Your task to perform on an android device: turn vacation reply on in the gmail app Image 0: 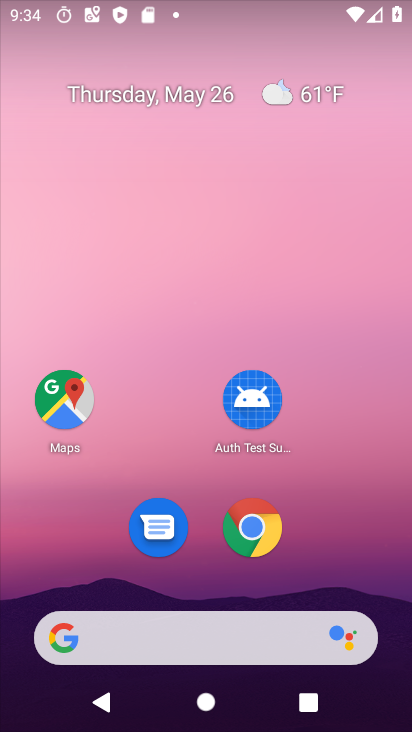
Step 0: drag from (368, 497) to (282, 13)
Your task to perform on an android device: turn vacation reply on in the gmail app Image 1: 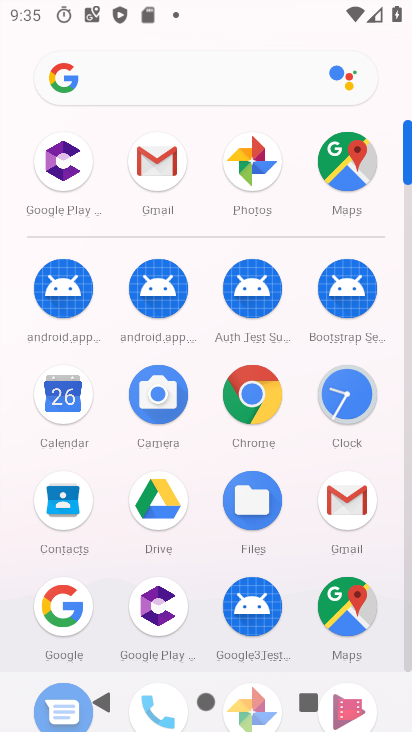
Step 1: click (365, 501)
Your task to perform on an android device: turn vacation reply on in the gmail app Image 2: 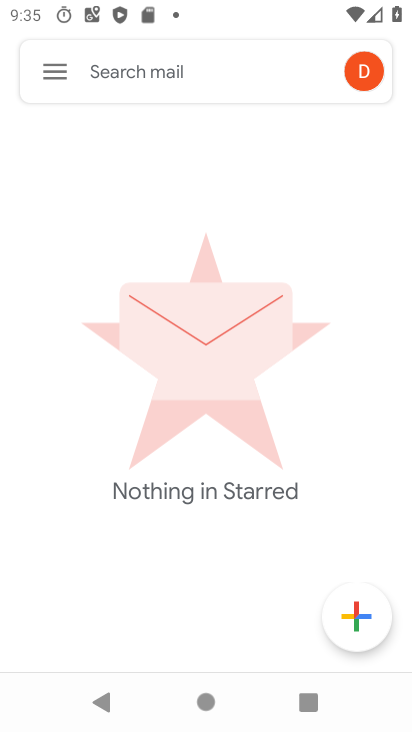
Step 2: click (58, 81)
Your task to perform on an android device: turn vacation reply on in the gmail app Image 3: 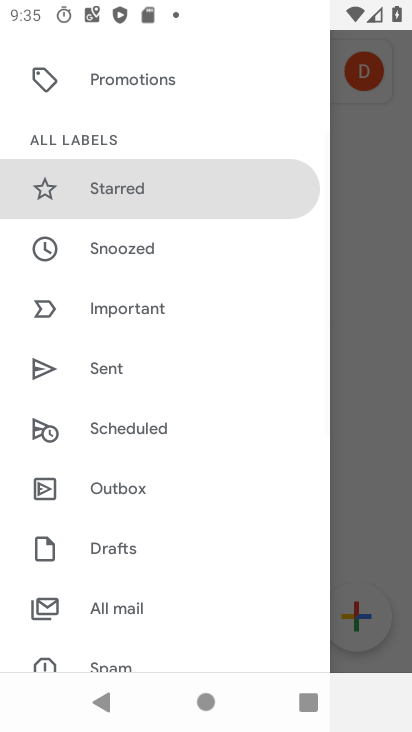
Step 3: drag from (147, 592) to (186, 131)
Your task to perform on an android device: turn vacation reply on in the gmail app Image 4: 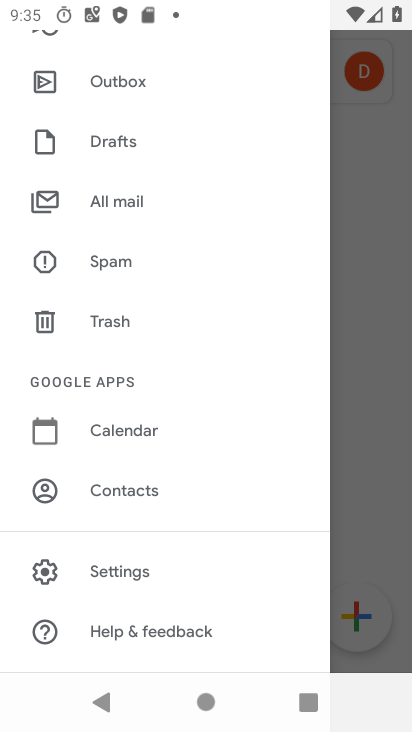
Step 4: click (121, 565)
Your task to perform on an android device: turn vacation reply on in the gmail app Image 5: 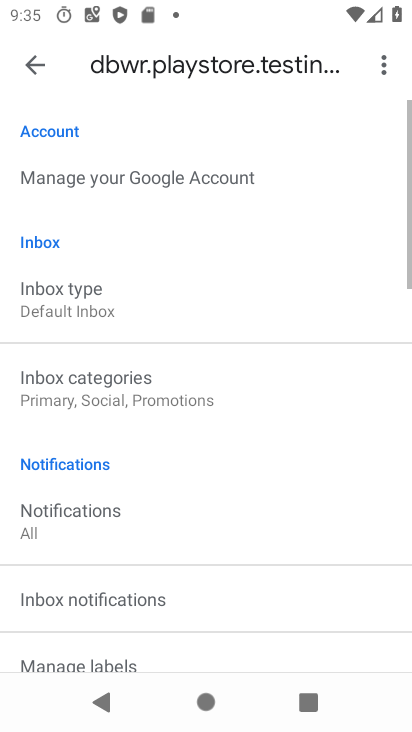
Step 5: drag from (148, 564) to (183, 190)
Your task to perform on an android device: turn vacation reply on in the gmail app Image 6: 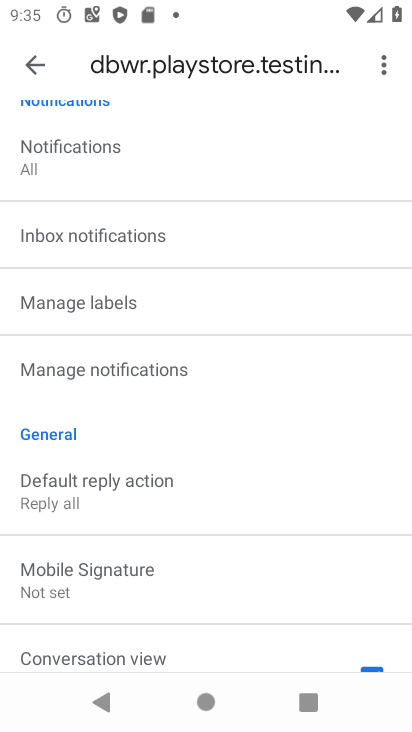
Step 6: drag from (160, 602) to (182, 191)
Your task to perform on an android device: turn vacation reply on in the gmail app Image 7: 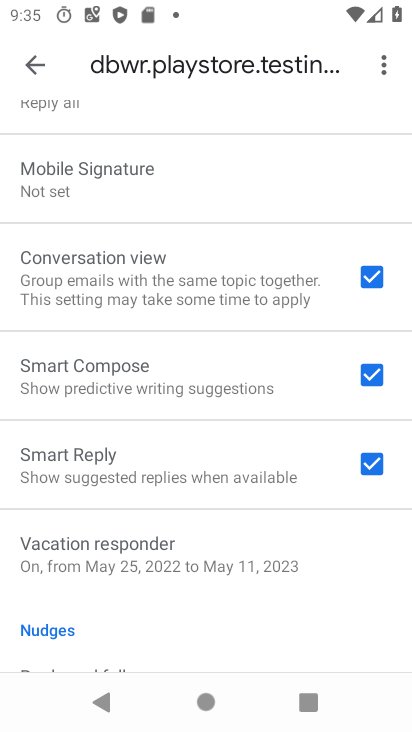
Step 7: click (157, 569)
Your task to perform on an android device: turn vacation reply on in the gmail app Image 8: 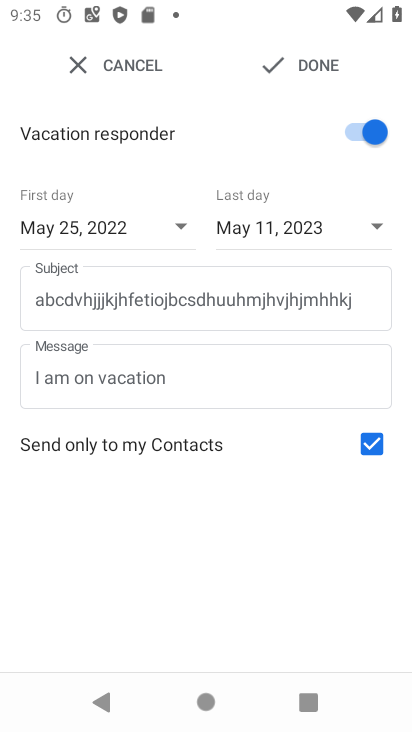
Step 8: task complete